Your task to perform on an android device: Is it going to rain this weekend? Image 0: 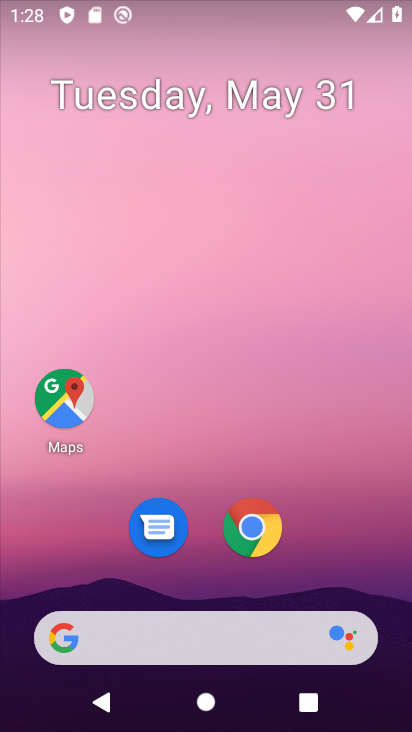
Step 0: drag from (338, 575) to (302, 186)
Your task to perform on an android device: Is it going to rain this weekend? Image 1: 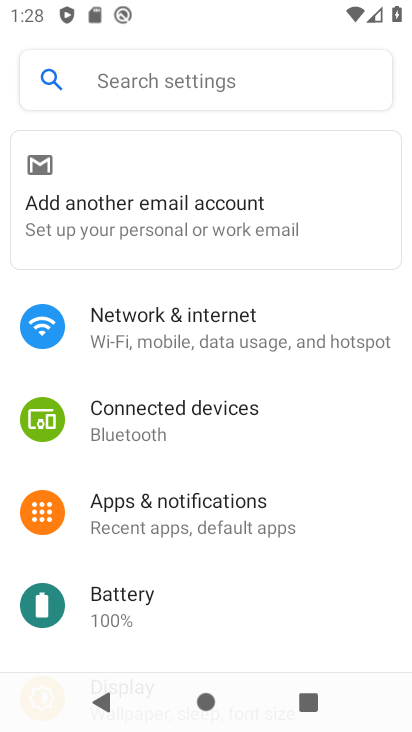
Step 1: click (202, 711)
Your task to perform on an android device: Is it going to rain this weekend? Image 2: 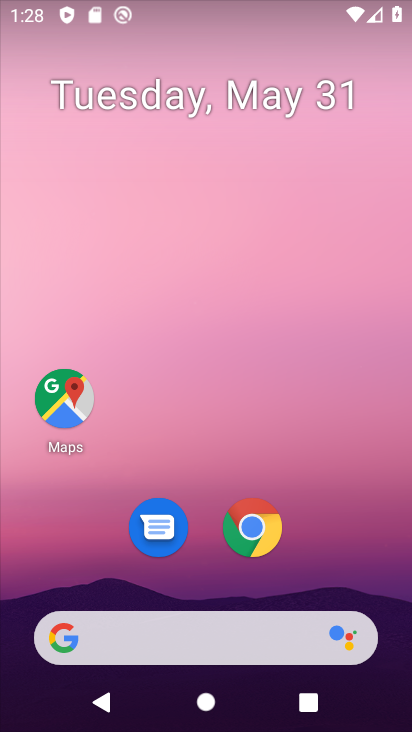
Step 2: click (71, 657)
Your task to perform on an android device: Is it going to rain this weekend? Image 3: 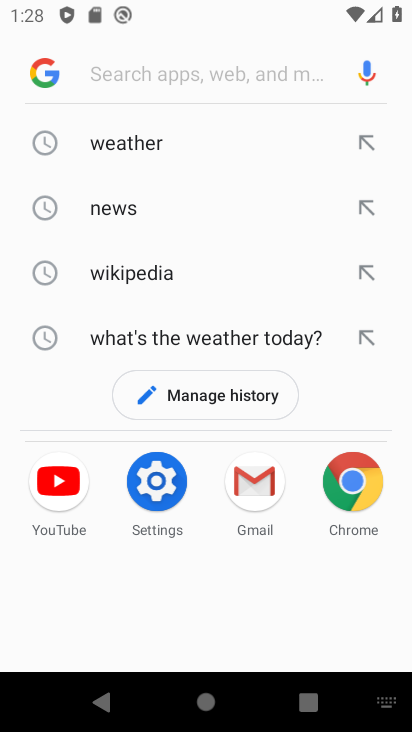
Step 3: click (46, 72)
Your task to perform on an android device: Is it going to rain this weekend? Image 4: 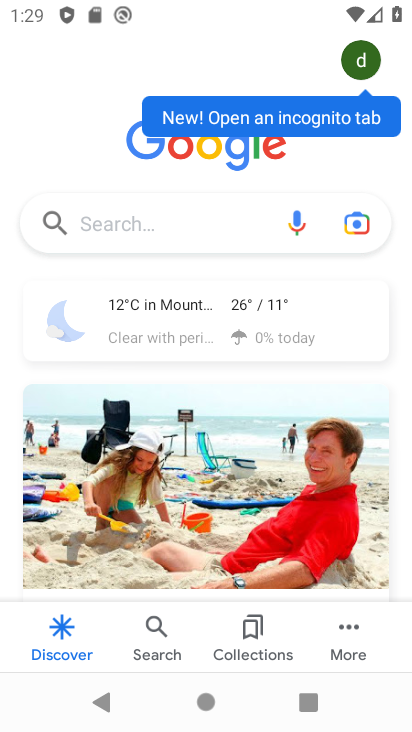
Step 4: click (258, 323)
Your task to perform on an android device: Is it going to rain this weekend? Image 5: 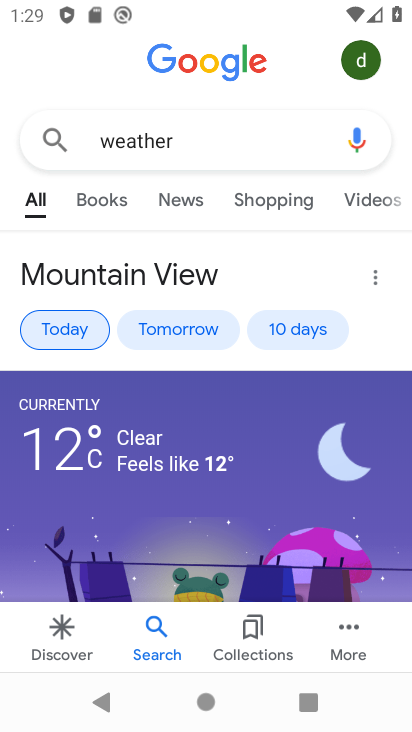
Step 5: task complete